Your task to perform on an android device: toggle javascript in the chrome app Image 0: 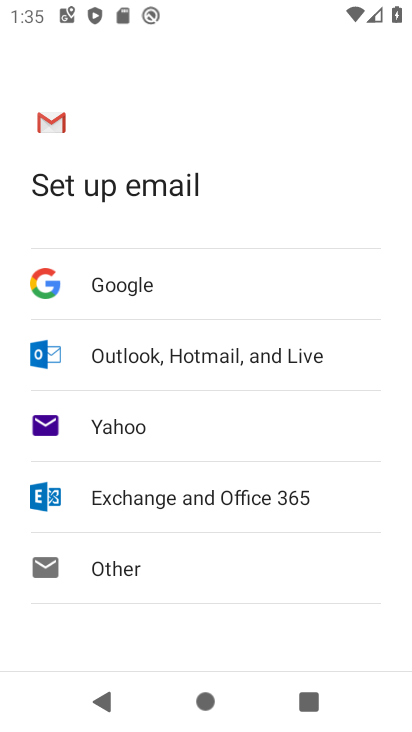
Step 0: press home button
Your task to perform on an android device: toggle javascript in the chrome app Image 1: 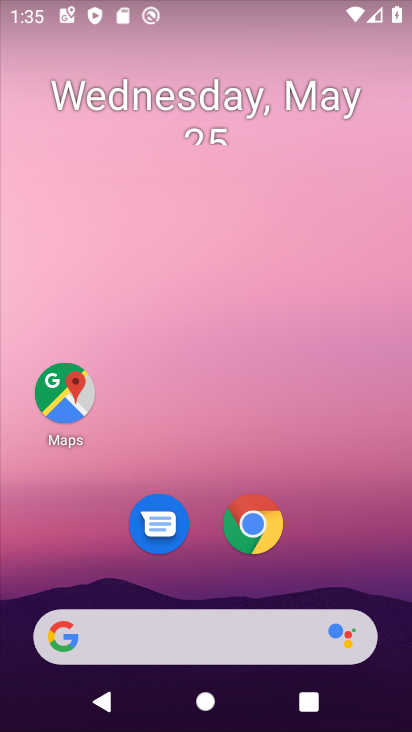
Step 1: click (266, 512)
Your task to perform on an android device: toggle javascript in the chrome app Image 2: 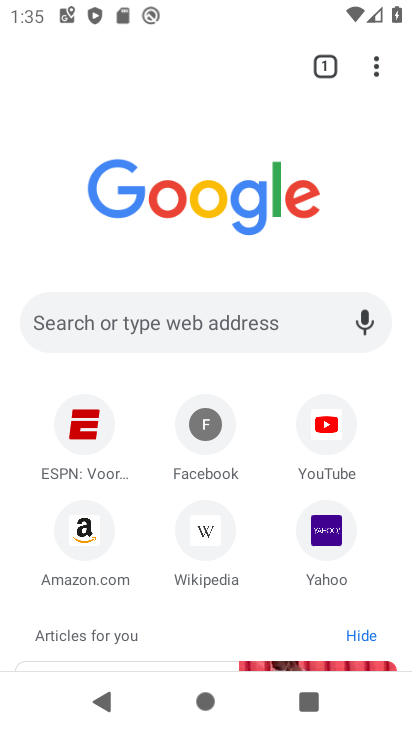
Step 2: click (376, 59)
Your task to perform on an android device: toggle javascript in the chrome app Image 3: 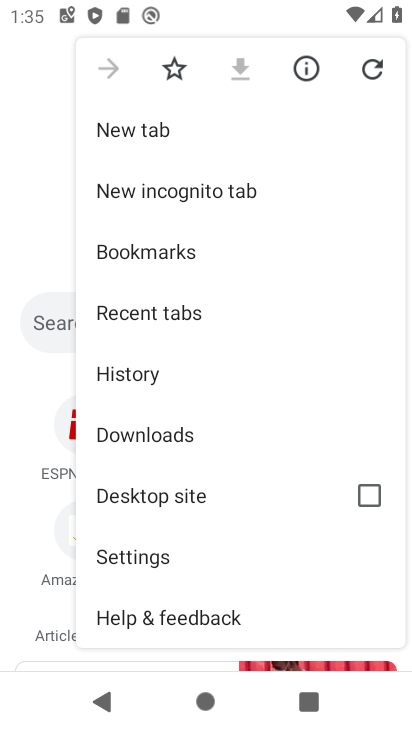
Step 3: click (185, 547)
Your task to perform on an android device: toggle javascript in the chrome app Image 4: 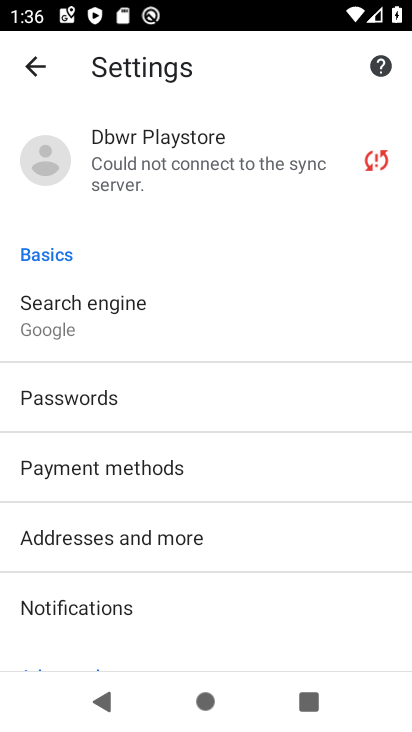
Step 4: drag from (232, 517) to (284, 254)
Your task to perform on an android device: toggle javascript in the chrome app Image 5: 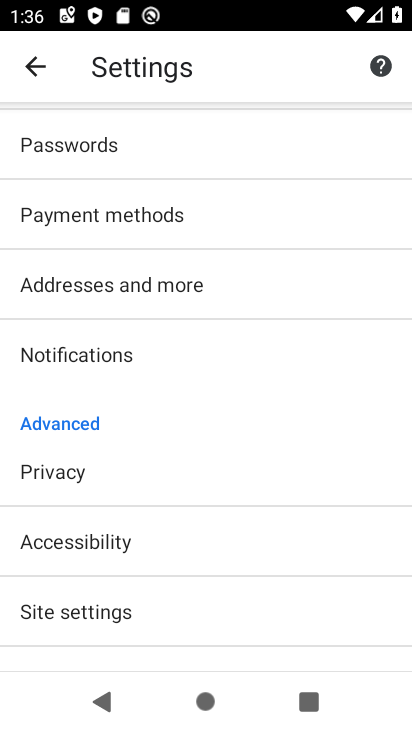
Step 5: click (210, 601)
Your task to perform on an android device: toggle javascript in the chrome app Image 6: 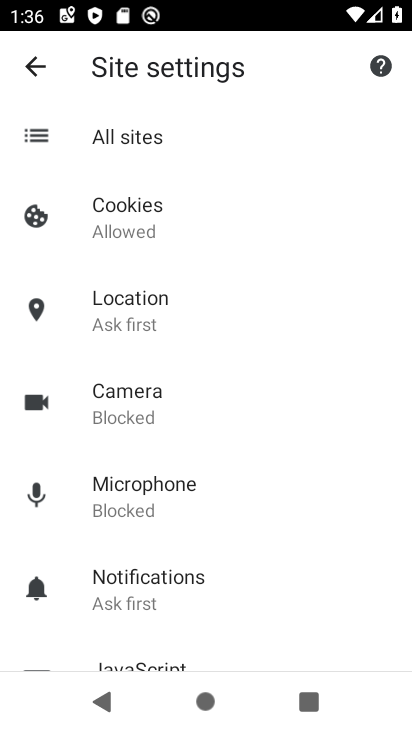
Step 6: drag from (253, 437) to (267, 234)
Your task to perform on an android device: toggle javascript in the chrome app Image 7: 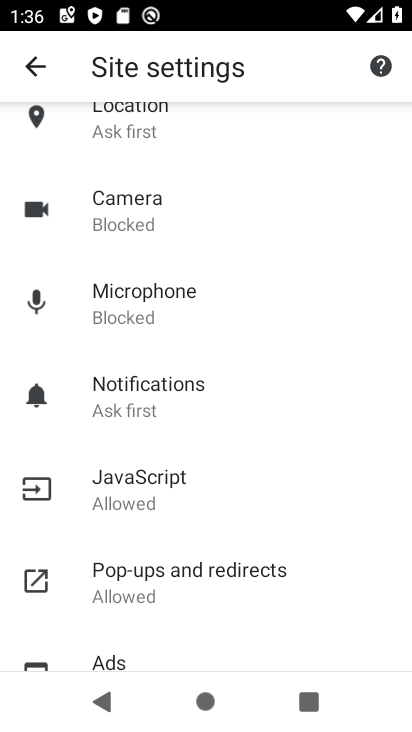
Step 7: click (181, 483)
Your task to perform on an android device: toggle javascript in the chrome app Image 8: 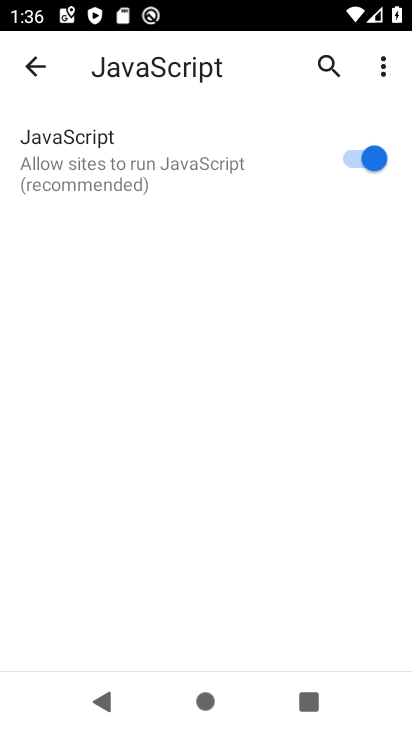
Step 8: click (363, 159)
Your task to perform on an android device: toggle javascript in the chrome app Image 9: 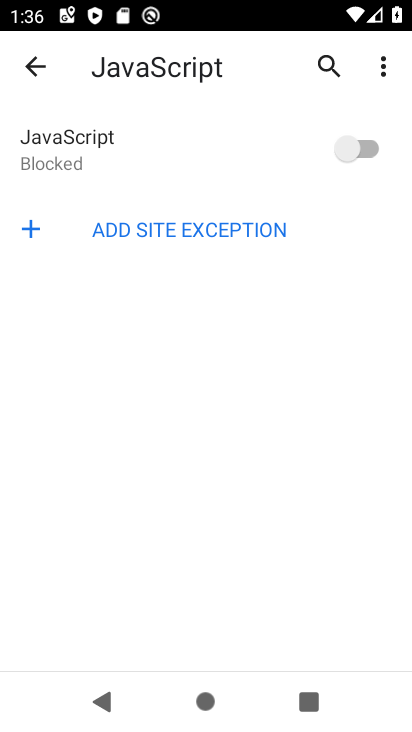
Step 9: task complete